Your task to perform on an android device: install app "HBO Max: Stream TV & Movies" Image 0: 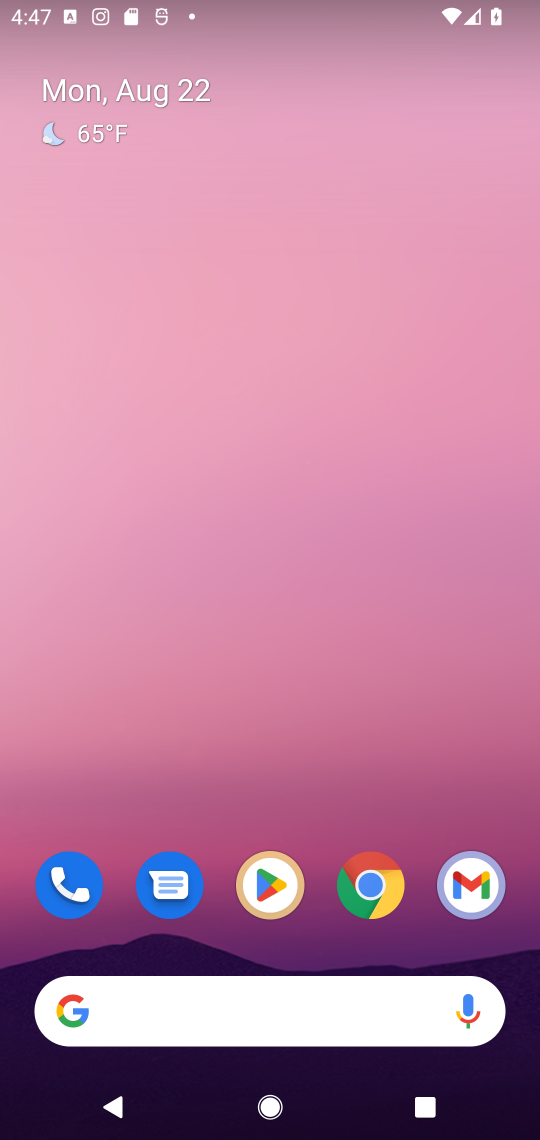
Step 0: press home button
Your task to perform on an android device: install app "HBO Max: Stream TV & Movies" Image 1: 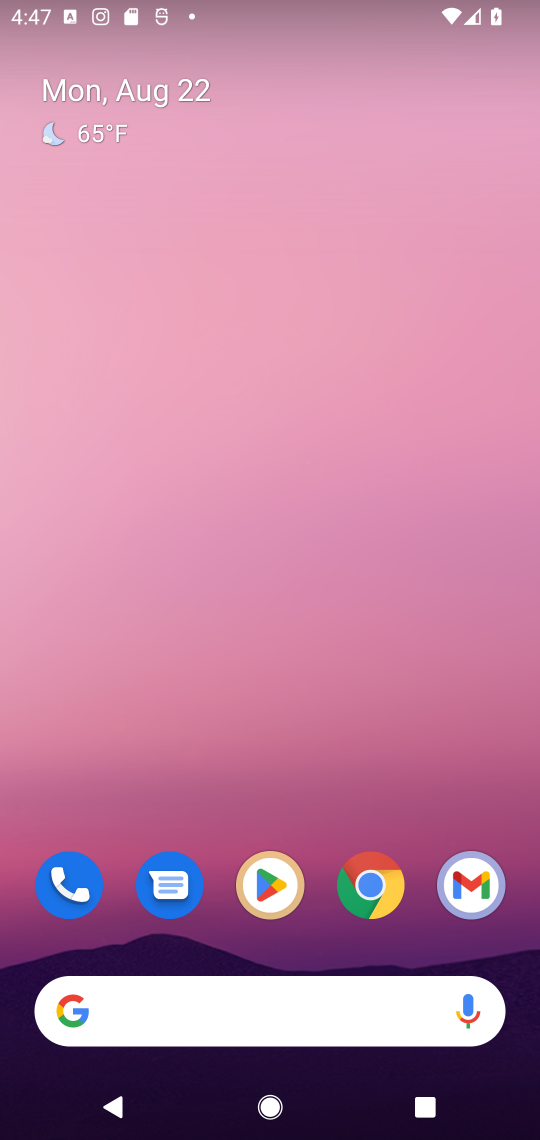
Step 1: click (263, 873)
Your task to perform on an android device: install app "HBO Max: Stream TV & Movies" Image 2: 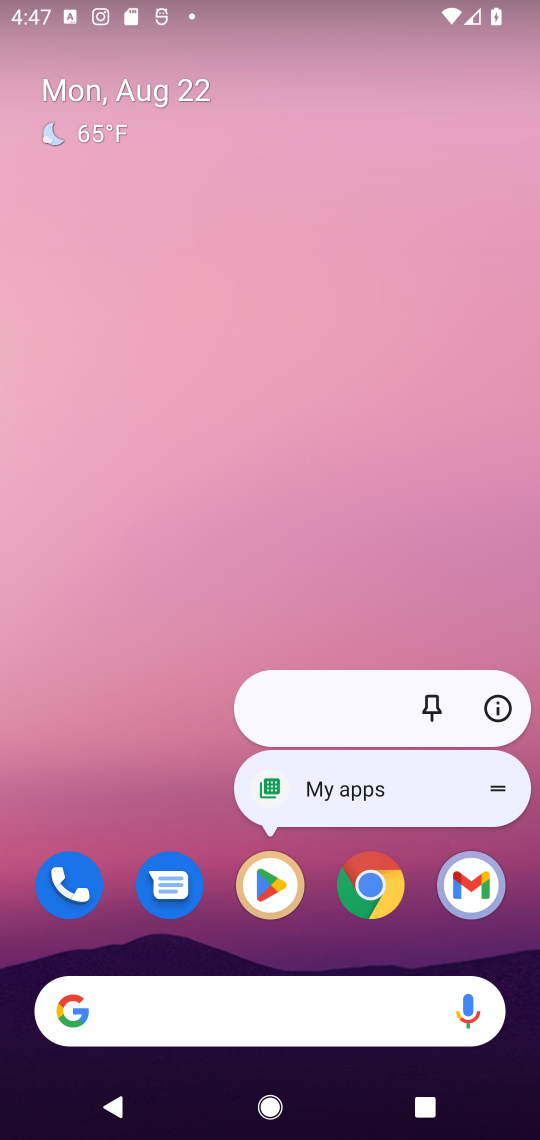
Step 2: click (265, 880)
Your task to perform on an android device: install app "HBO Max: Stream TV & Movies" Image 3: 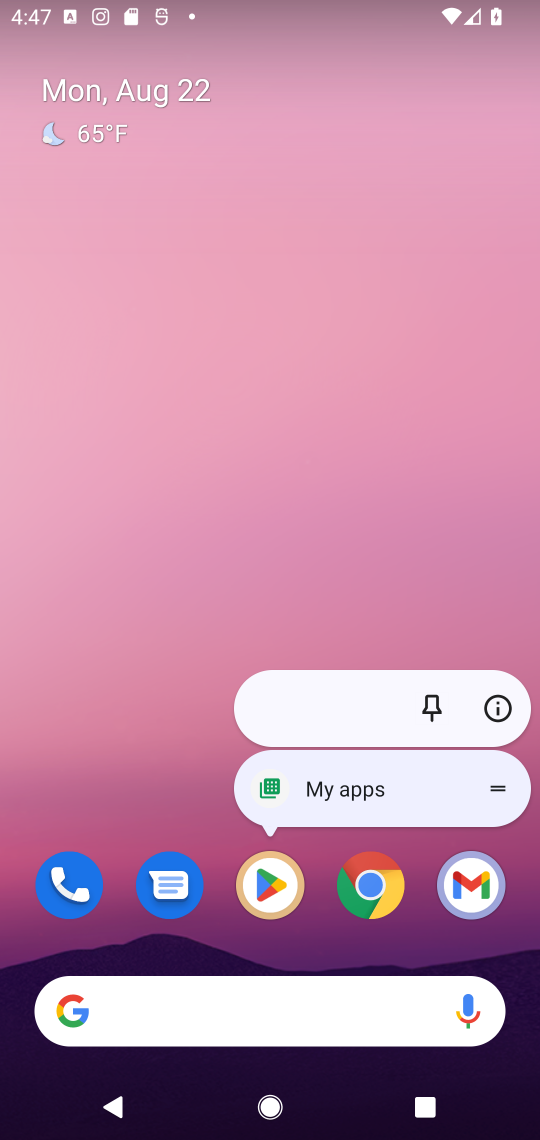
Step 3: click (266, 877)
Your task to perform on an android device: install app "HBO Max: Stream TV & Movies" Image 4: 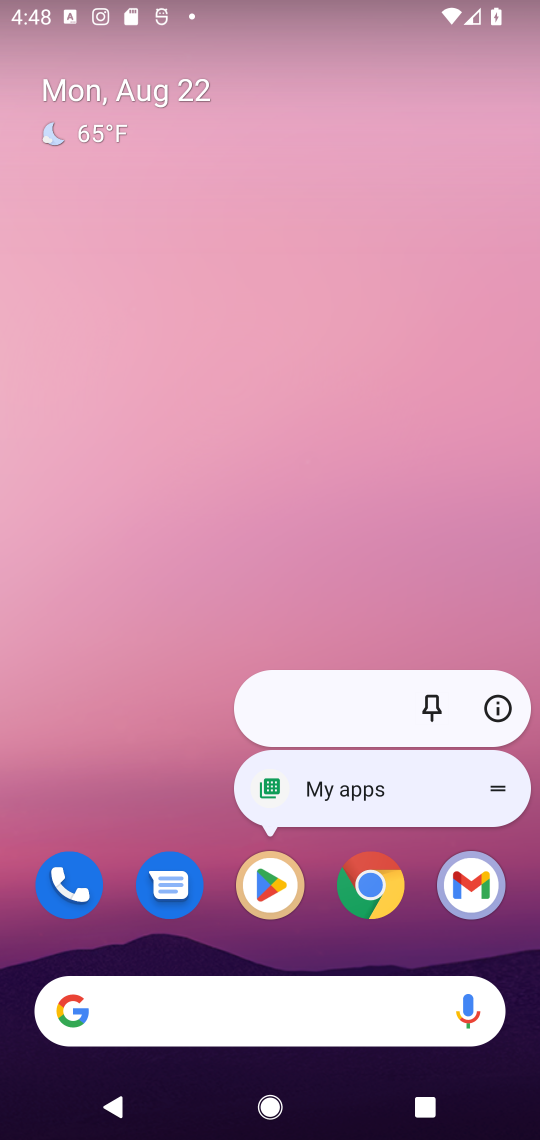
Step 4: click (266, 877)
Your task to perform on an android device: install app "HBO Max: Stream TV & Movies" Image 5: 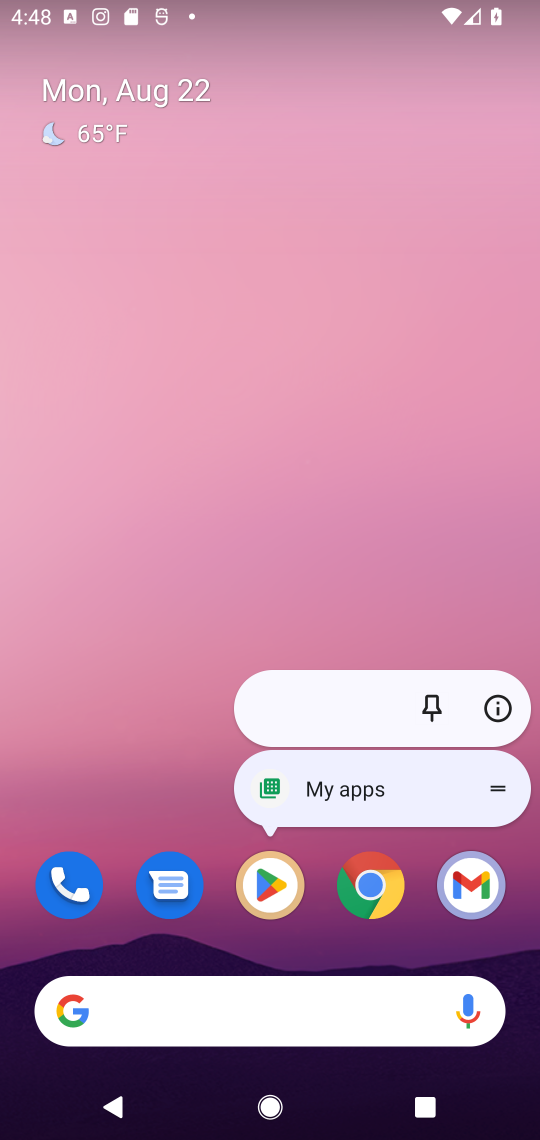
Step 5: click (266, 877)
Your task to perform on an android device: install app "HBO Max: Stream TV & Movies" Image 6: 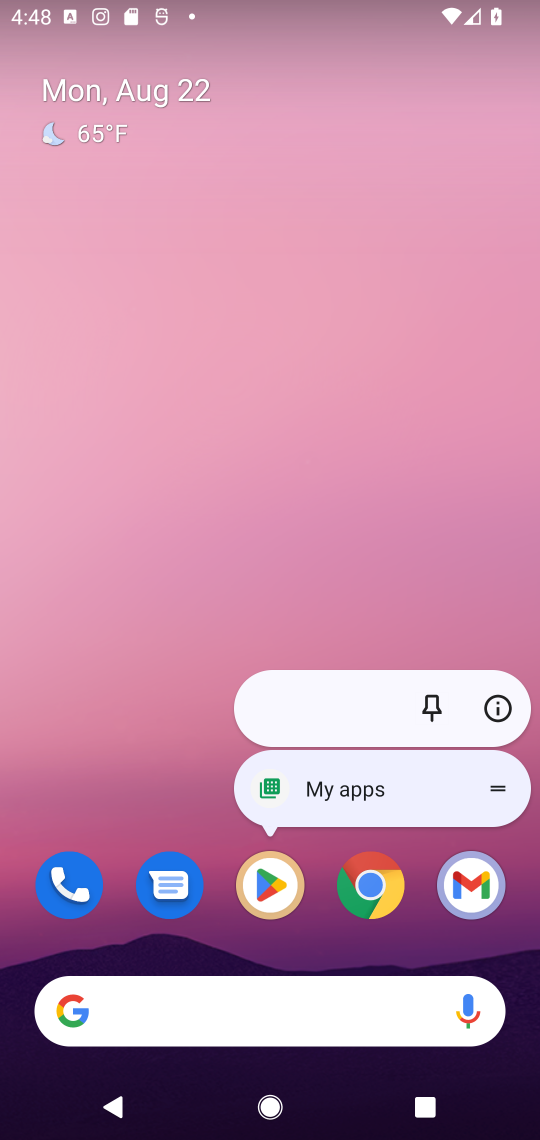
Step 6: click (121, 760)
Your task to perform on an android device: install app "HBO Max: Stream TV & Movies" Image 7: 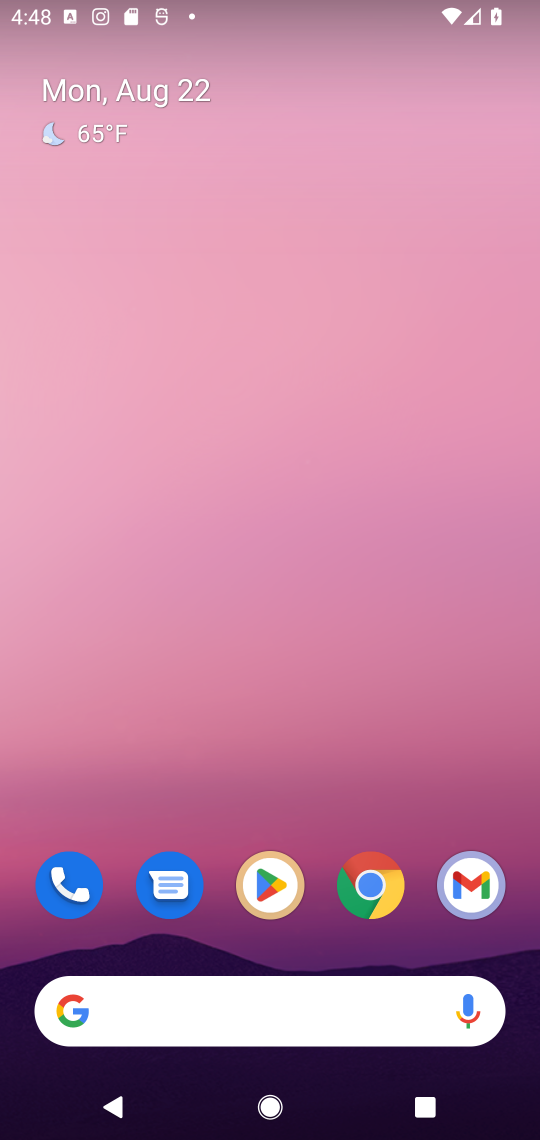
Step 7: drag from (122, 842) to (160, 70)
Your task to perform on an android device: install app "HBO Max: Stream TV & Movies" Image 8: 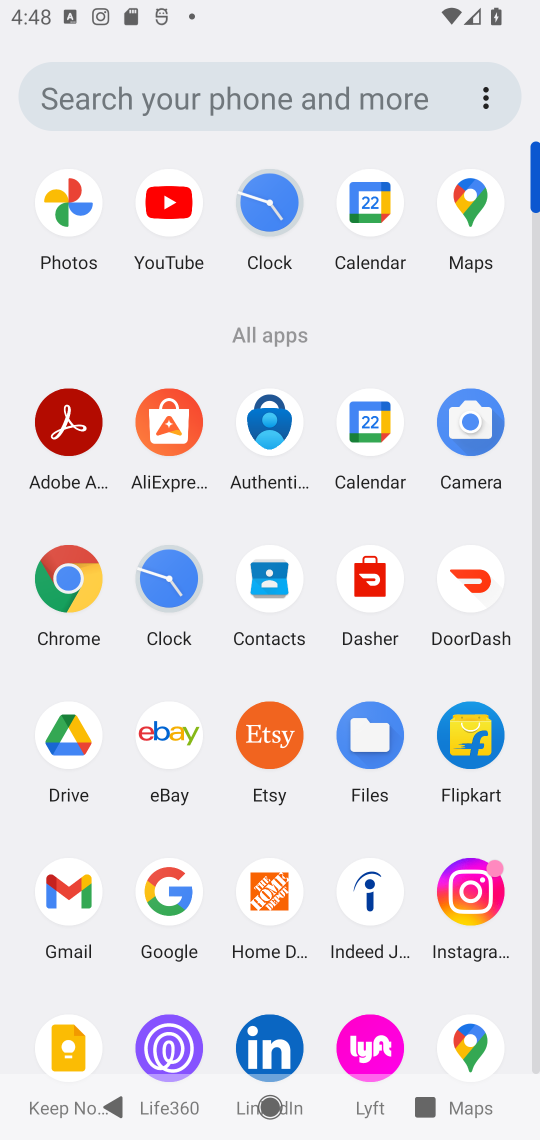
Step 8: drag from (289, 937) to (289, 222)
Your task to perform on an android device: install app "HBO Max: Stream TV & Movies" Image 9: 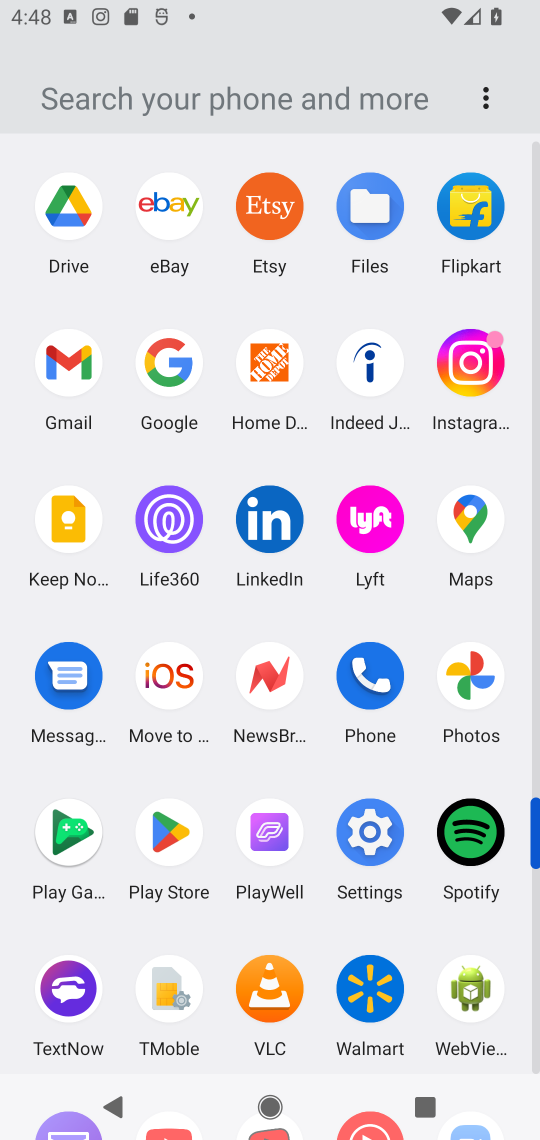
Step 9: drag from (310, 1054) to (296, 295)
Your task to perform on an android device: install app "HBO Max: Stream TV & Movies" Image 10: 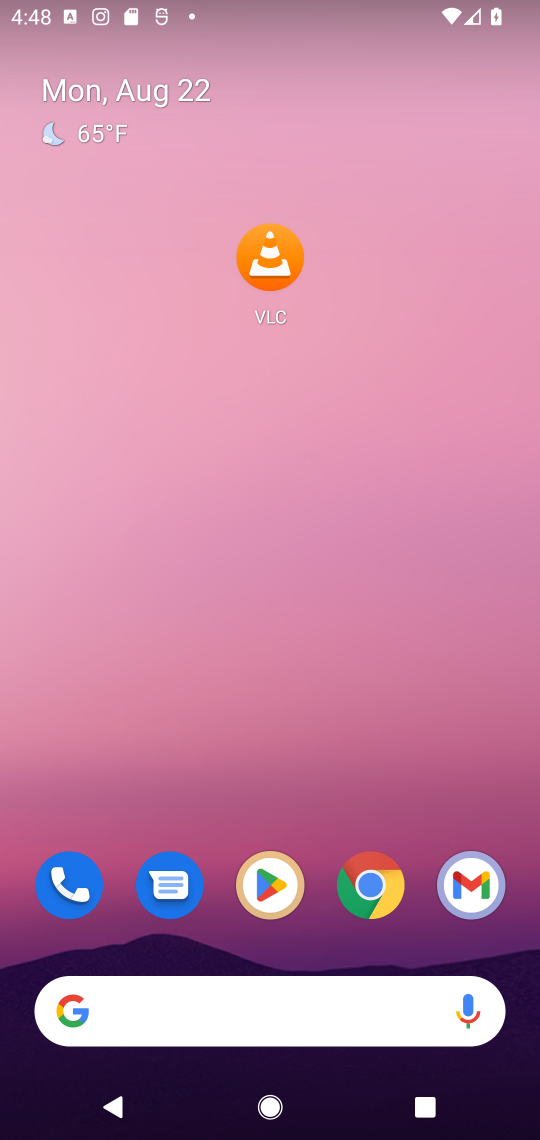
Step 10: click (261, 877)
Your task to perform on an android device: install app "HBO Max: Stream TV & Movies" Image 11: 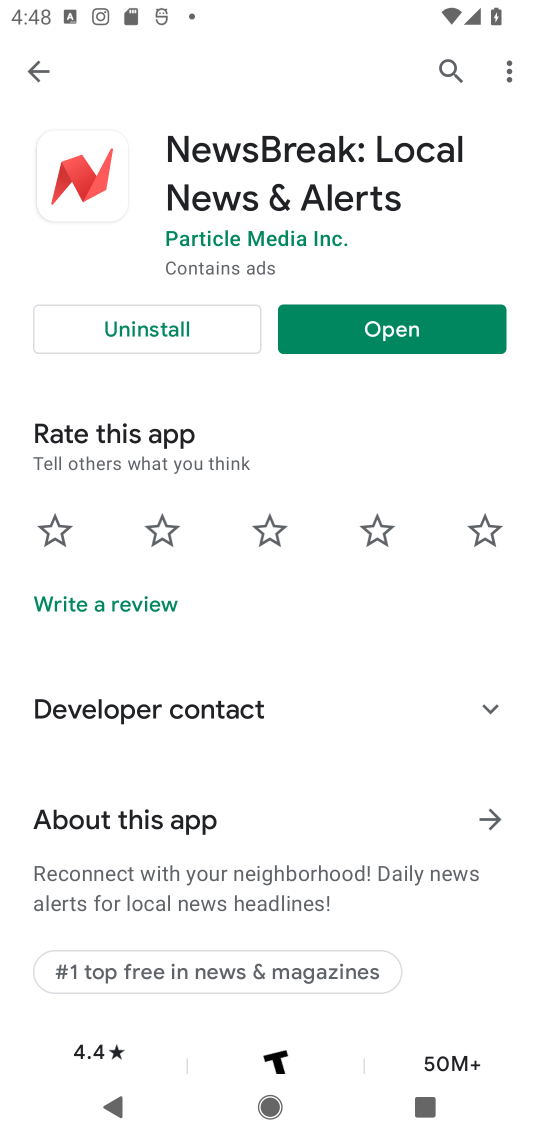
Step 11: click (443, 81)
Your task to perform on an android device: install app "HBO Max: Stream TV & Movies" Image 12: 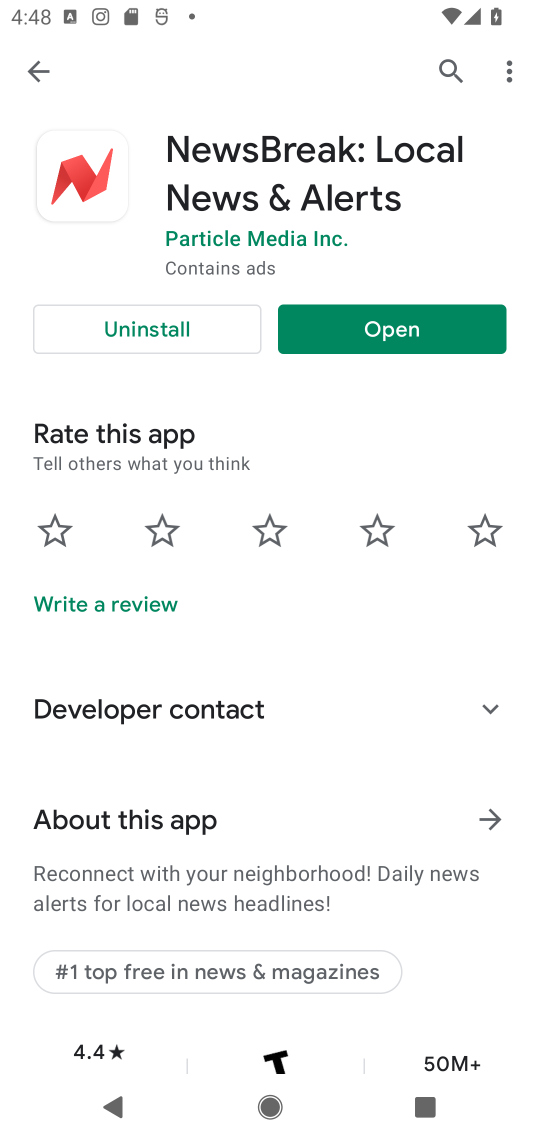
Step 12: click (447, 65)
Your task to perform on an android device: install app "HBO Max: Stream TV & Movies" Image 13: 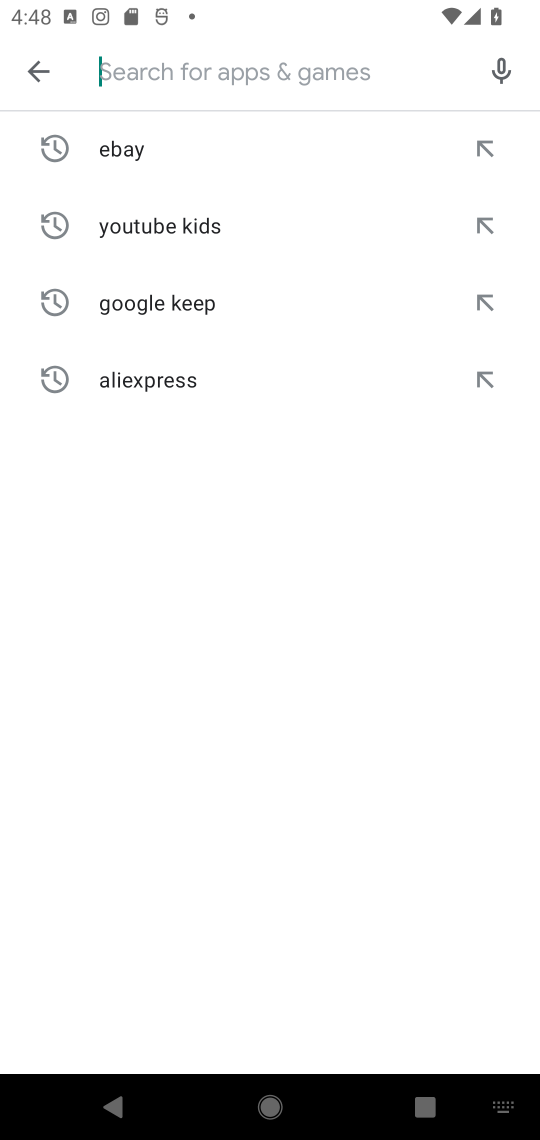
Step 13: type "HBO Max: Stream TV & Movies"
Your task to perform on an android device: install app "HBO Max: Stream TV & Movies" Image 14: 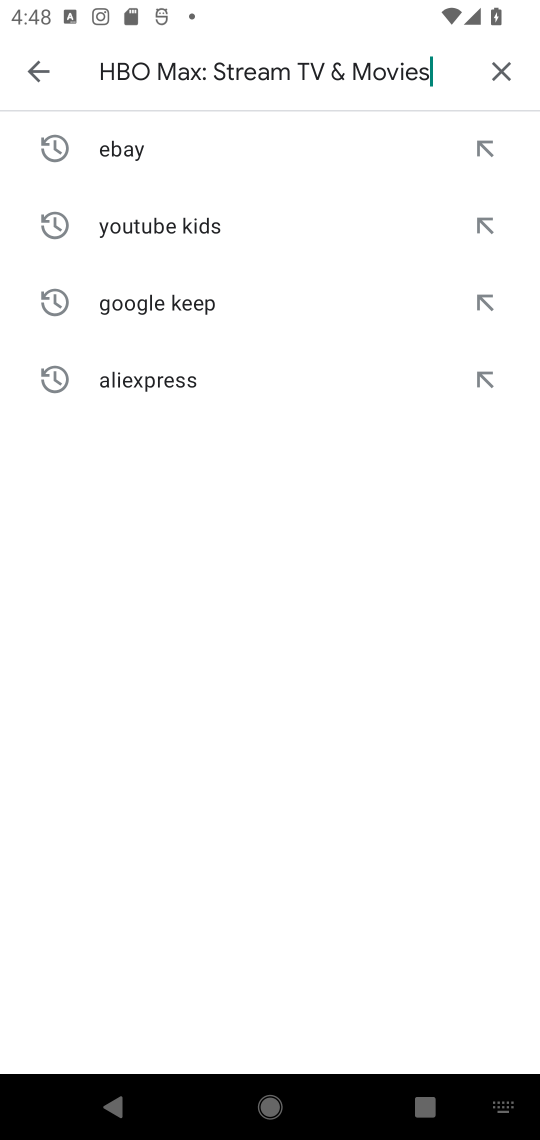
Step 14: type ""
Your task to perform on an android device: install app "HBO Max: Stream TV & Movies" Image 15: 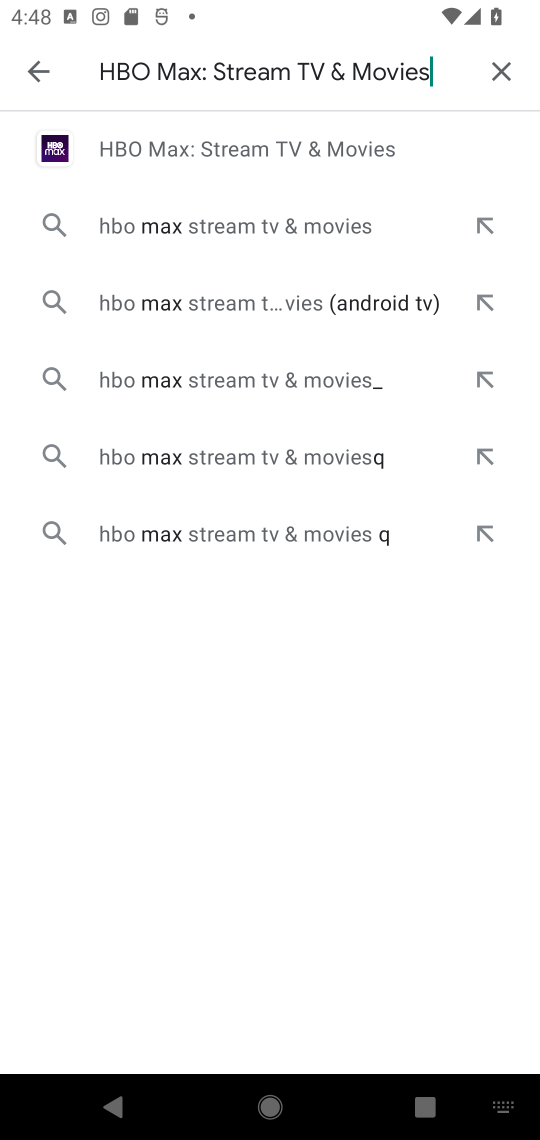
Step 15: click (96, 144)
Your task to perform on an android device: install app "HBO Max: Stream TV & Movies" Image 16: 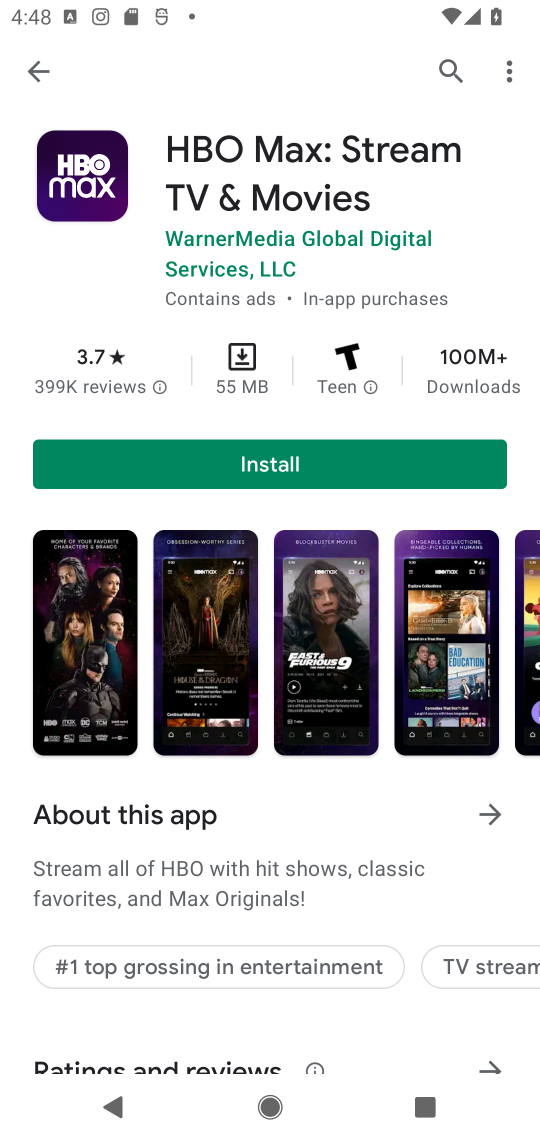
Step 16: click (270, 468)
Your task to perform on an android device: install app "HBO Max: Stream TV & Movies" Image 17: 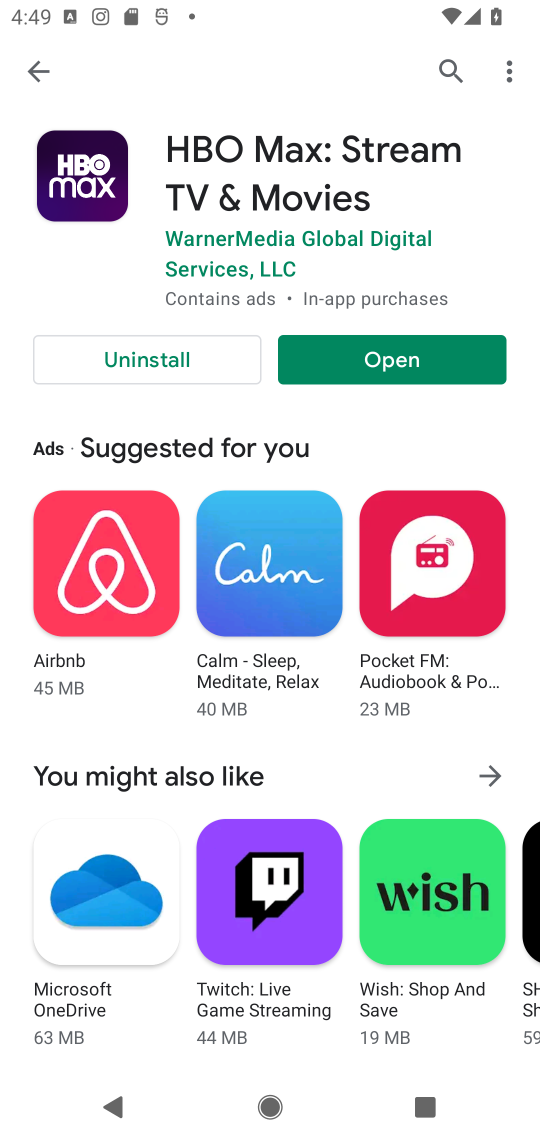
Step 17: click (396, 367)
Your task to perform on an android device: install app "HBO Max: Stream TV & Movies" Image 18: 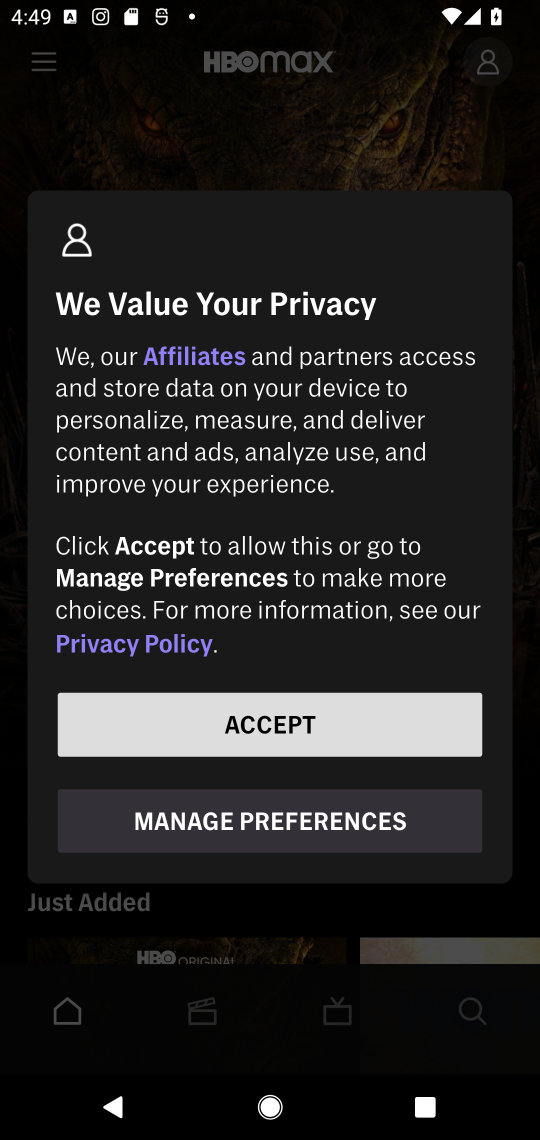
Step 18: click (277, 721)
Your task to perform on an android device: install app "HBO Max: Stream TV & Movies" Image 19: 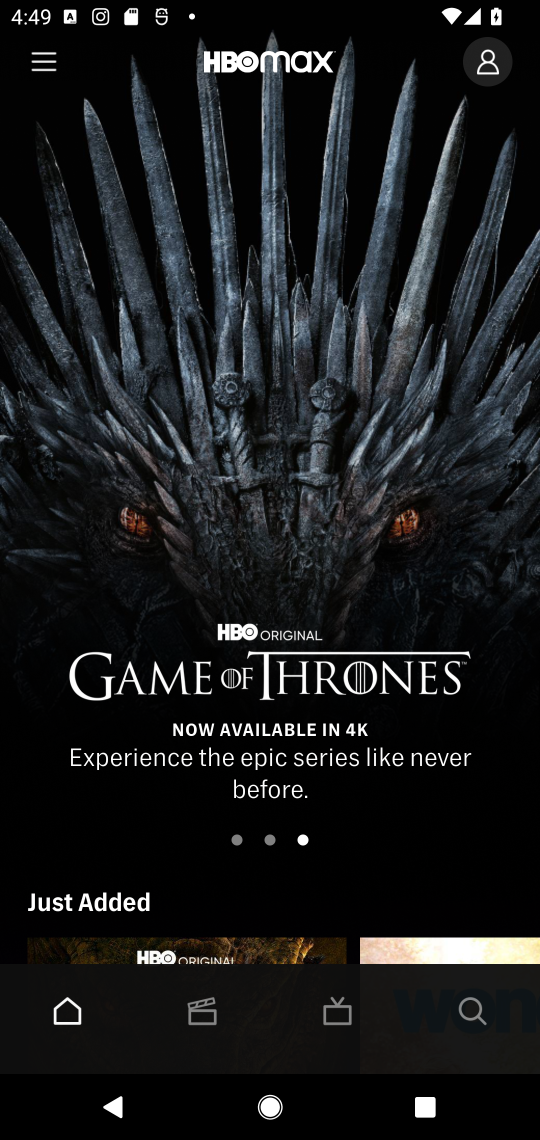
Step 19: task complete